Your task to perform on an android device: Toggle the flashlight Image 0: 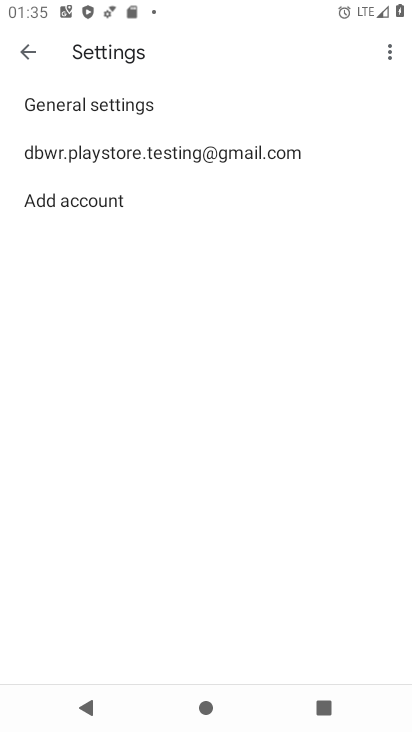
Step 0: press home button
Your task to perform on an android device: Toggle the flashlight Image 1: 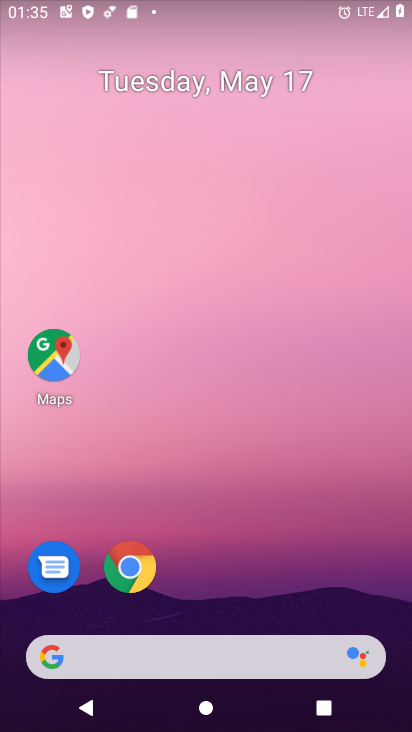
Step 1: drag from (264, 492) to (213, 161)
Your task to perform on an android device: Toggle the flashlight Image 2: 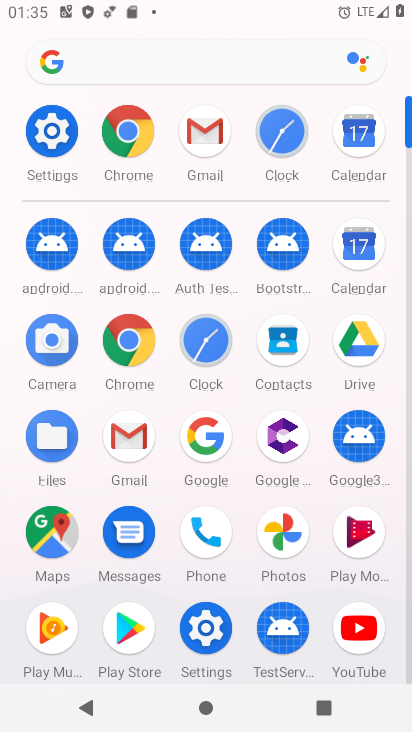
Step 2: click (50, 126)
Your task to perform on an android device: Toggle the flashlight Image 3: 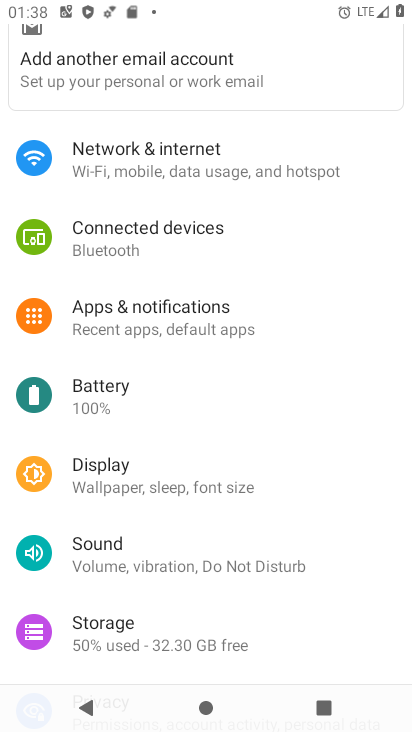
Step 3: click (142, 232)
Your task to perform on an android device: Toggle the flashlight Image 4: 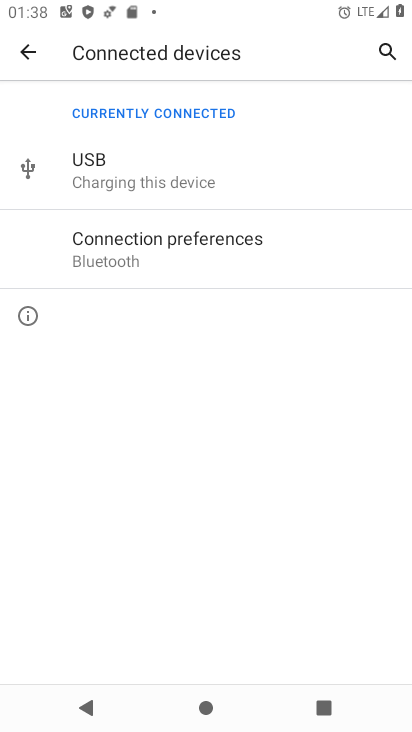
Step 4: task complete